Your task to perform on an android device: uninstall "Google Find My Device" Image 0: 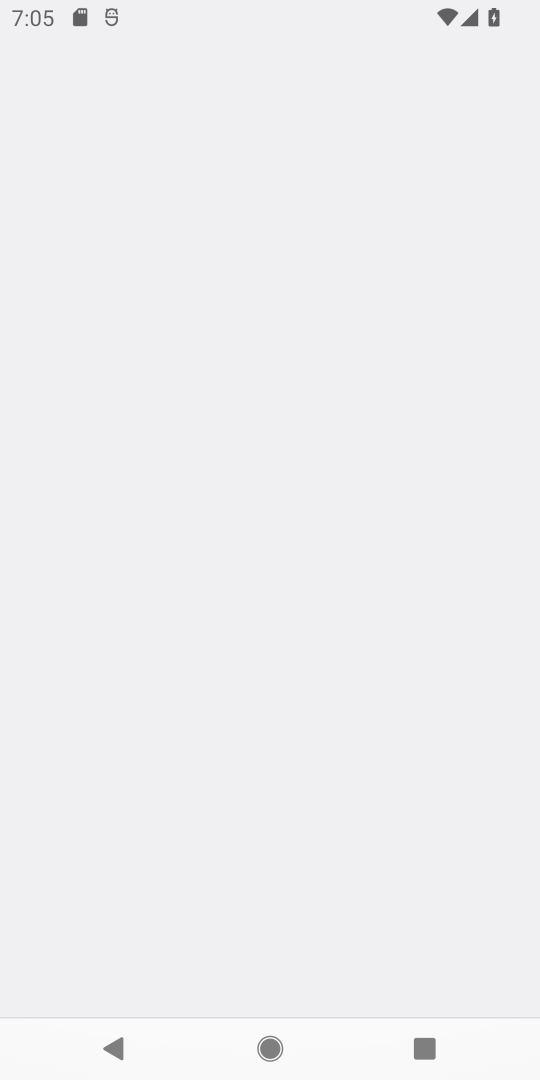
Step 0: press back button
Your task to perform on an android device: uninstall "Google Find My Device" Image 1: 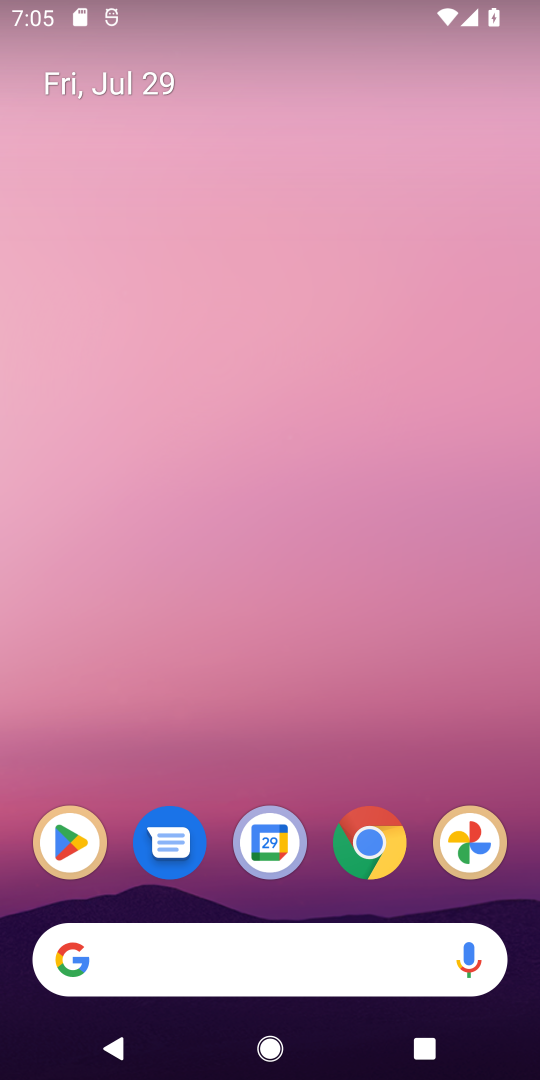
Step 1: drag from (342, 609) to (335, 310)
Your task to perform on an android device: uninstall "Google Find My Device" Image 2: 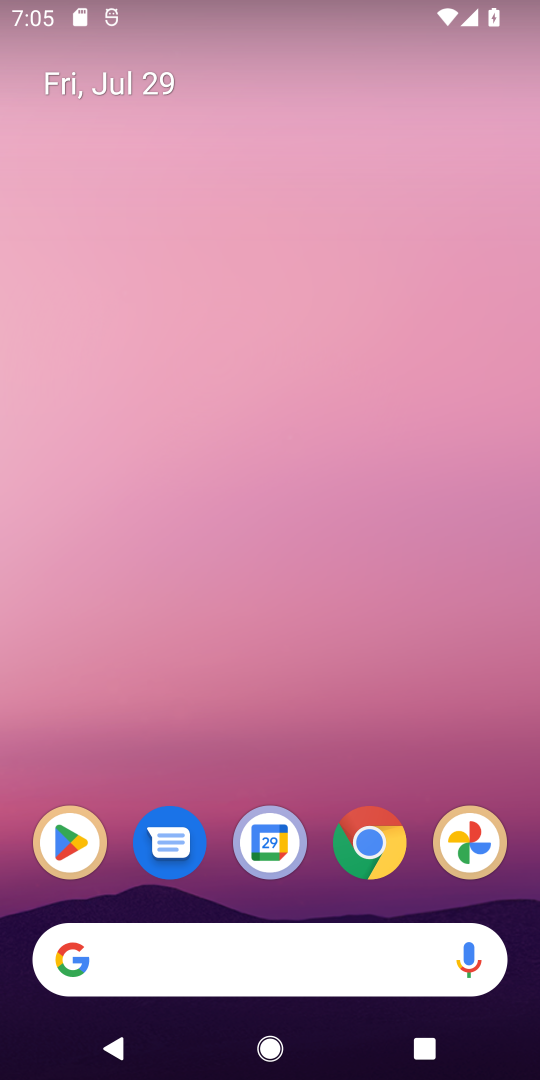
Step 2: drag from (362, 795) to (338, 248)
Your task to perform on an android device: uninstall "Google Find My Device" Image 3: 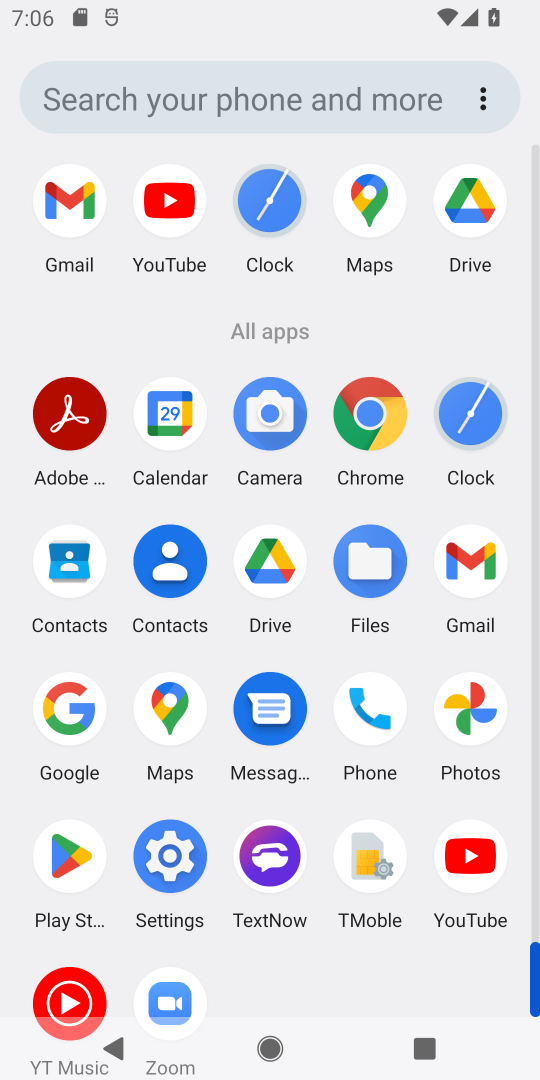
Step 3: click (81, 847)
Your task to perform on an android device: uninstall "Google Find My Device" Image 4: 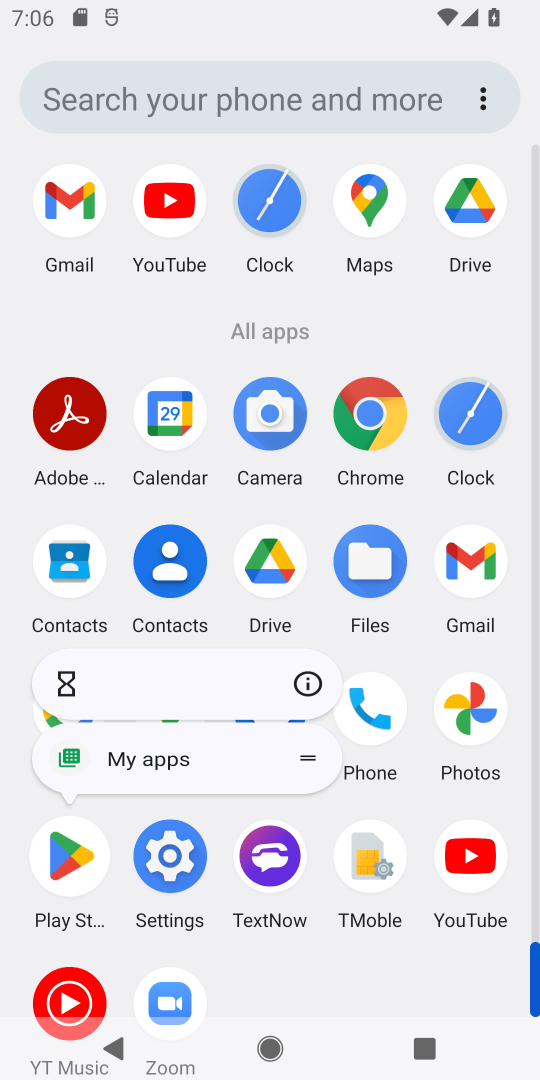
Step 4: click (86, 849)
Your task to perform on an android device: uninstall "Google Find My Device" Image 5: 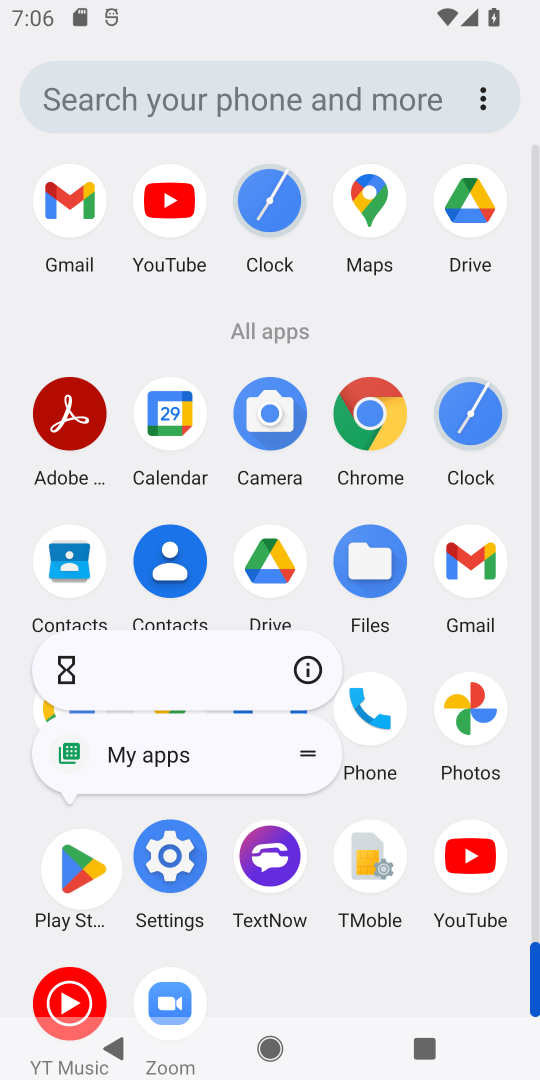
Step 5: click (96, 861)
Your task to perform on an android device: uninstall "Google Find My Device" Image 6: 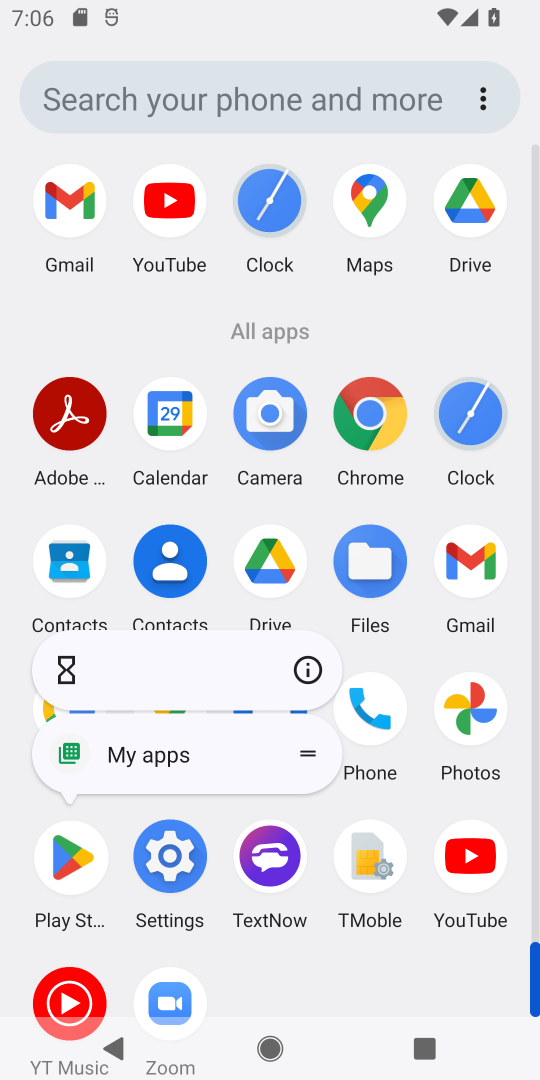
Step 6: click (52, 860)
Your task to perform on an android device: uninstall "Google Find My Device" Image 7: 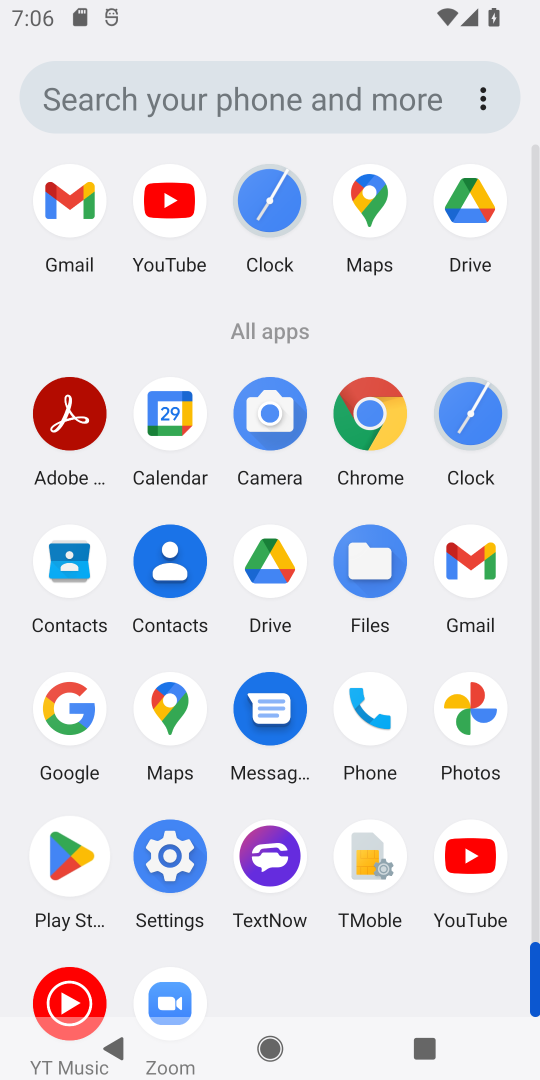
Step 7: click (71, 862)
Your task to perform on an android device: uninstall "Google Find My Device" Image 8: 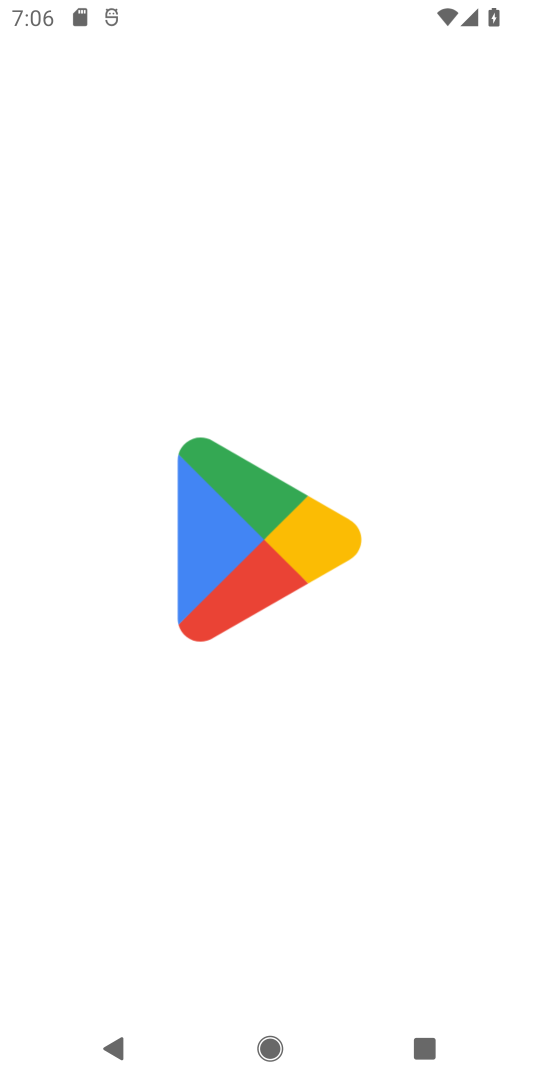
Step 8: click (74, 861)
Your task to perform on an android device: uninstall "Google Find My Device" Image 9: 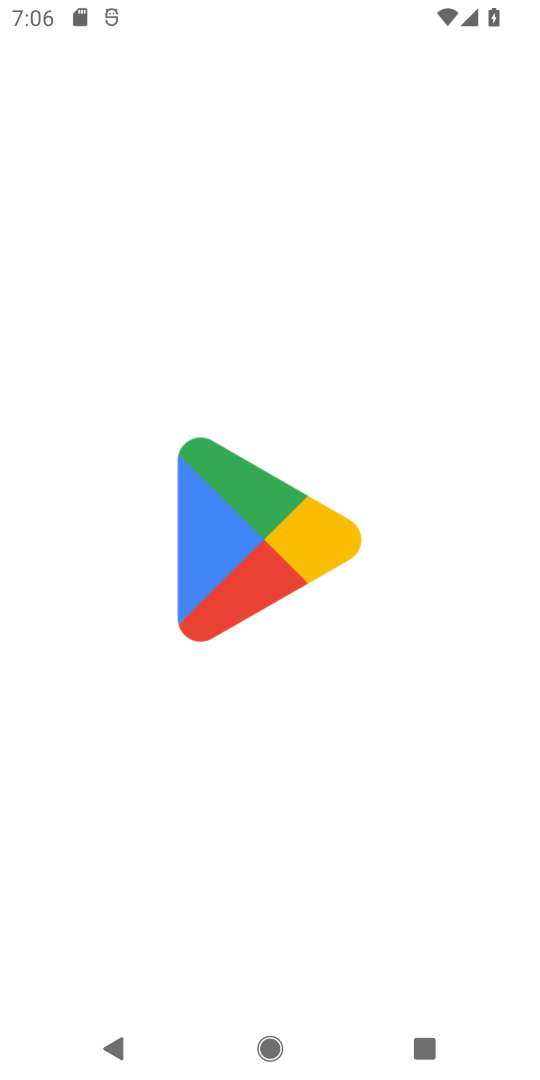
Step 9: click (77, 859)
Your task to perform on an android device: uninstall "Google Find My Device" Image 10: 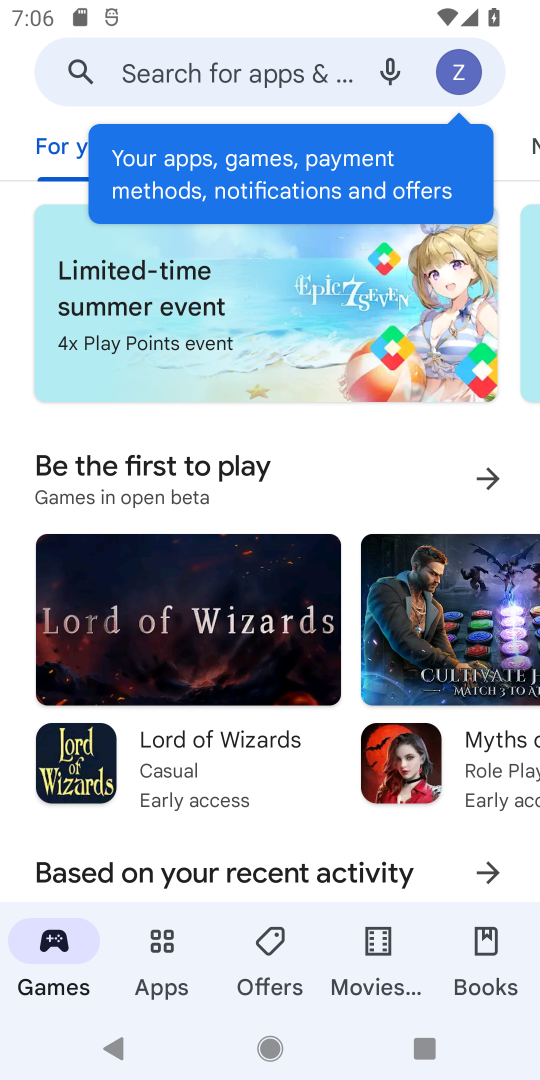
Step 10: click (123, 50)
Your task to perform on an android device: uninstall "Google Find My Device" Image 11: 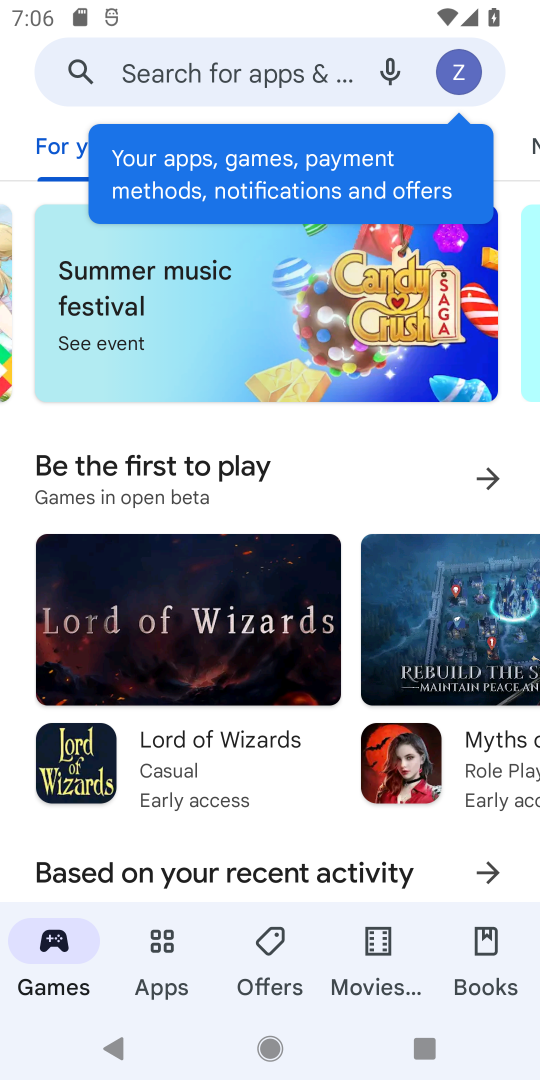
Step 11: click (127, 54)
Your task to perform on an android device: uninstall "Google Find My Device" Image 12: 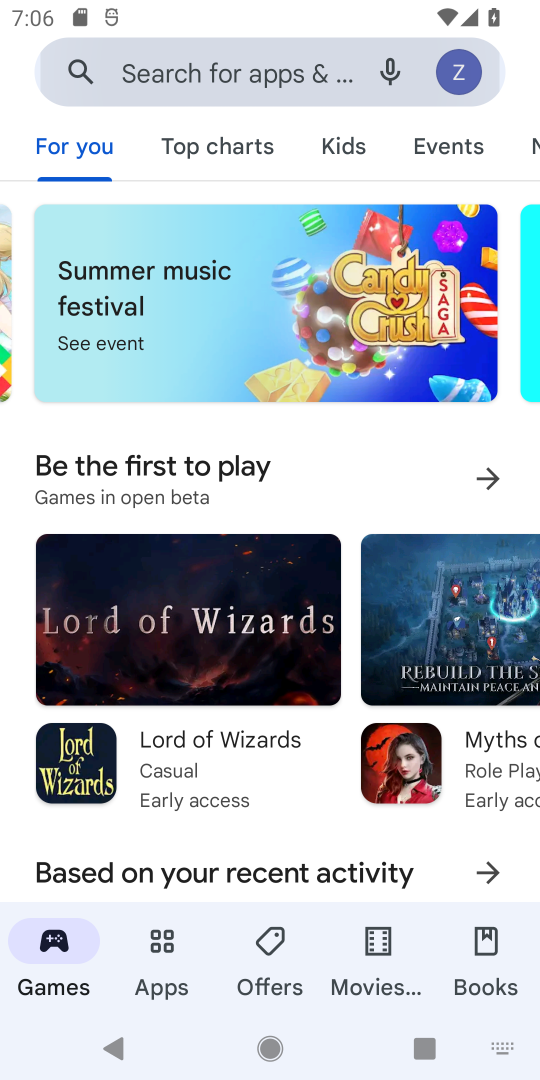
Step 12: click (132, 57)
Your task to perform on an android device: uninstall "Google Find My Device" Image 13: 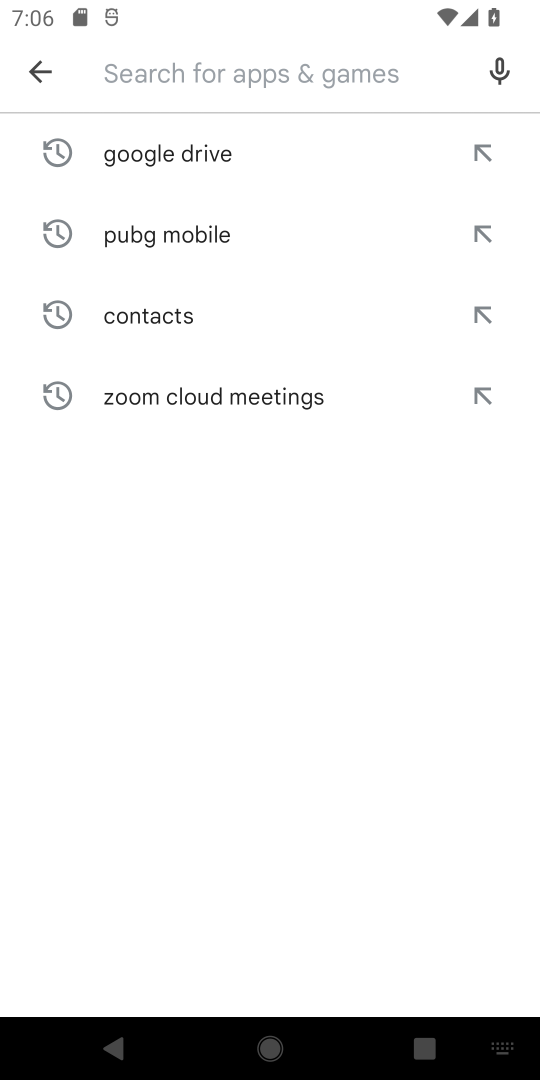
Step 13: click (132, 57)
Your task to perform on an android device: uninstall "Google Find My Device" Image 14: 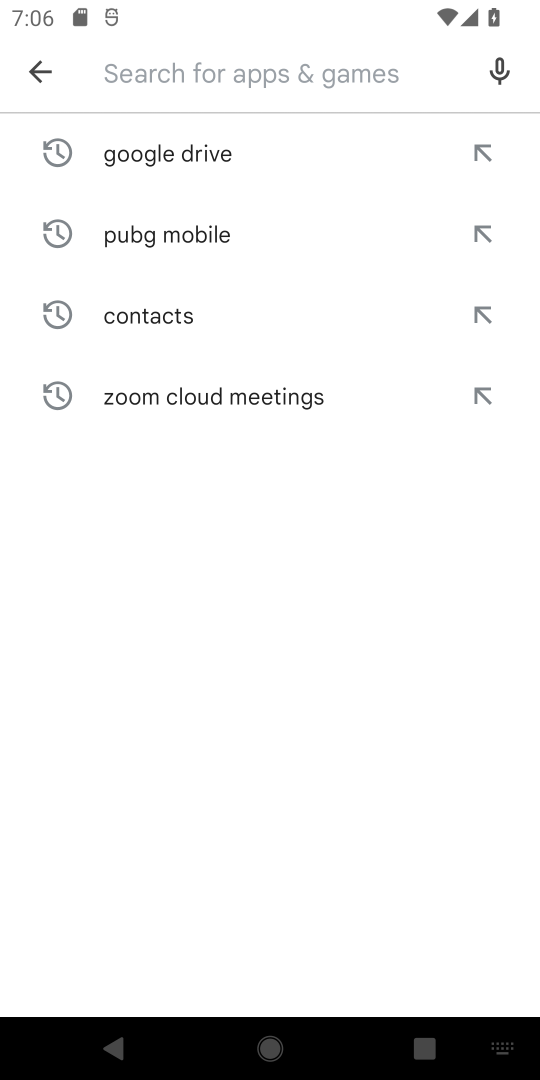
Step 14: click (131, 57)
Your task to perform on an android device: uninstall "Google Find My Device" Image 15: 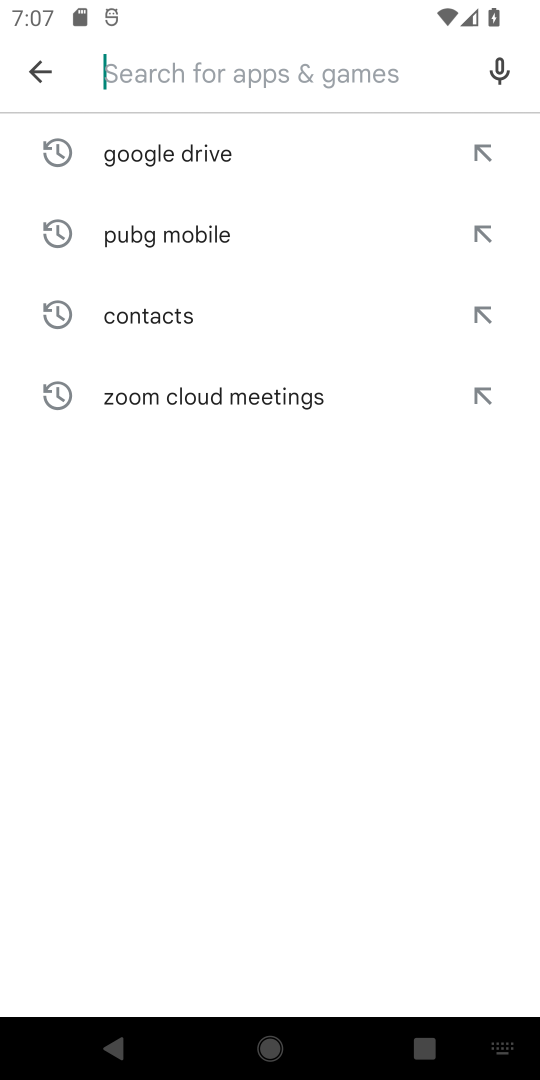
Step 15: type "Google Find My Device"
Your task to perform on an android device: uninstall "Google Find My Device" Image 16: 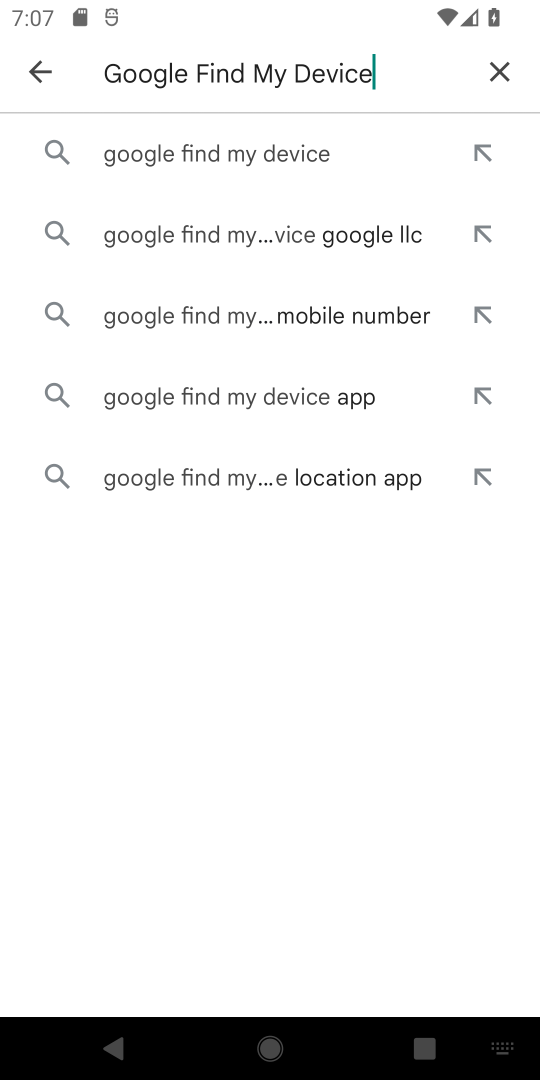
Step 16: click (181, 156)
Your task to perform on an android device: uninstall "Google Find My Device" Image 17: 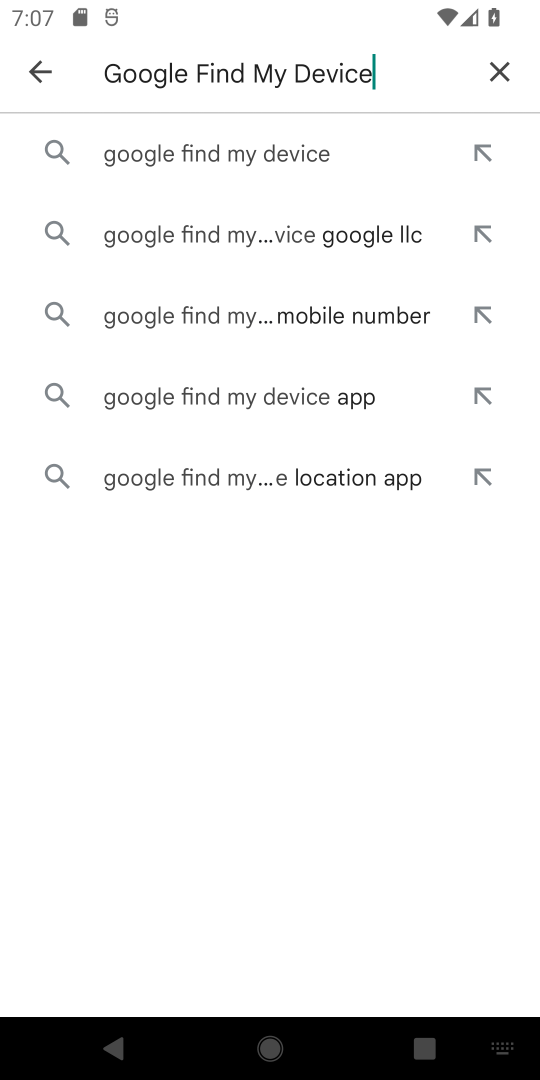
Step 17: click (181, 154)
Your task to perform on an android device: uninstall "Google Find My Device" Image 18: 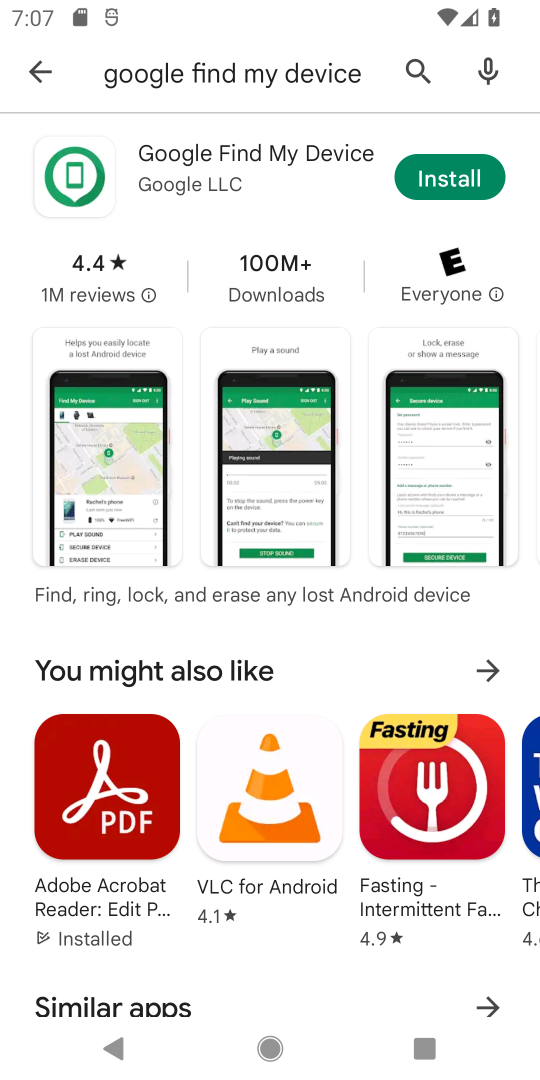
Step 18: click (447, 184)
Your task to perform on an android device: uninstall "Google Find My Device" Image 19: 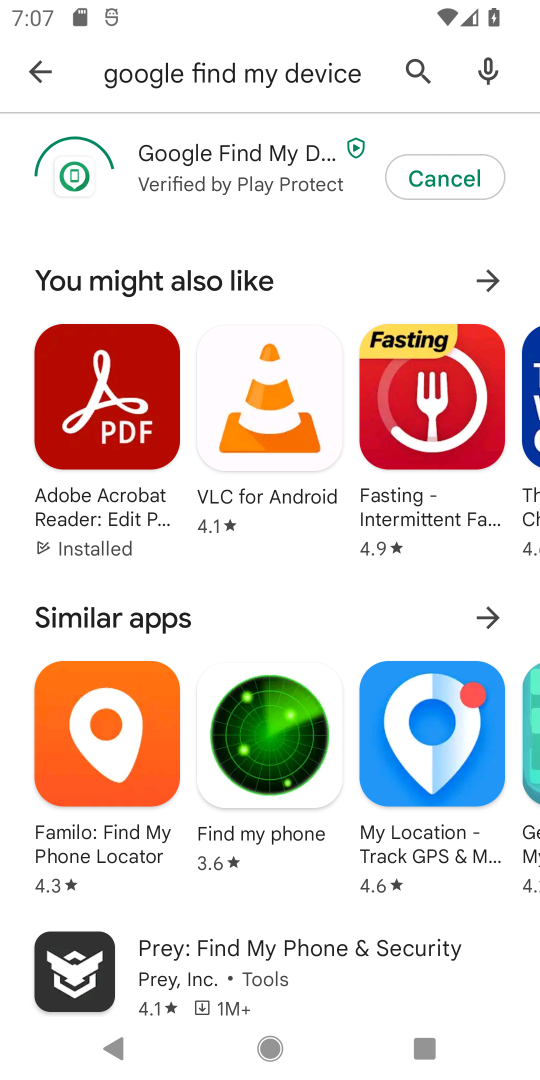
Step 19: click (413, 185)
Your task to perform on an android device: uninstall "Google Find My Device" Image 20: 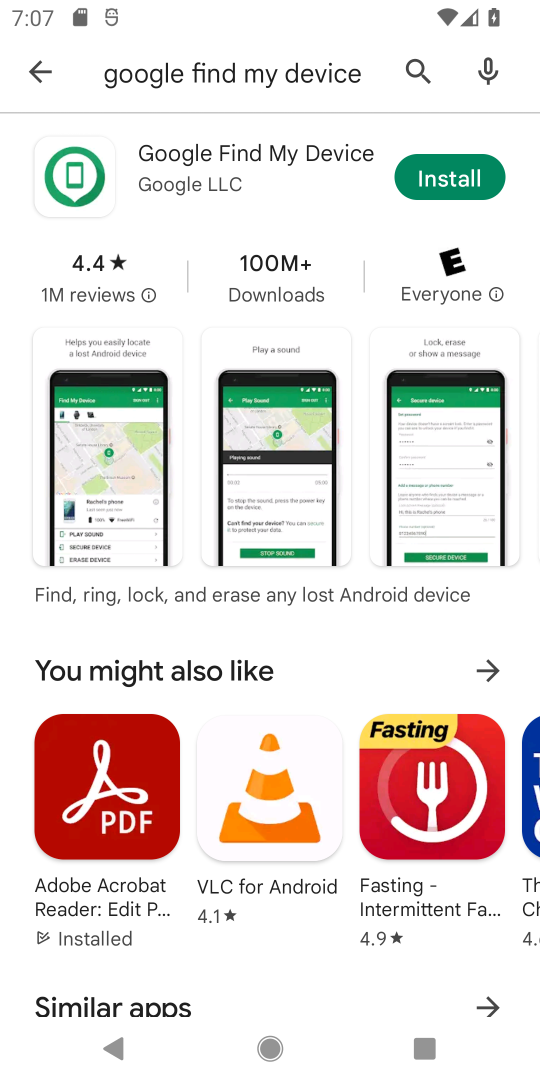
Step 20: task complete